Your task to perform on an android device: What is the news today? Image 0: 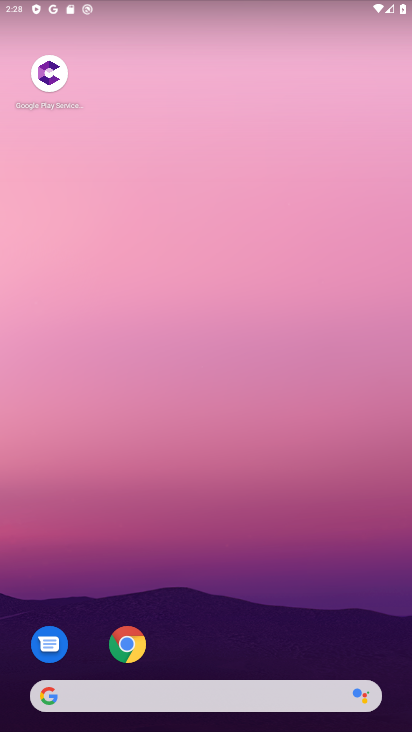
Step 0: drag from (269, 642) to (183, 113)
Your task to perform on an android device: What is the news today? Image 1: 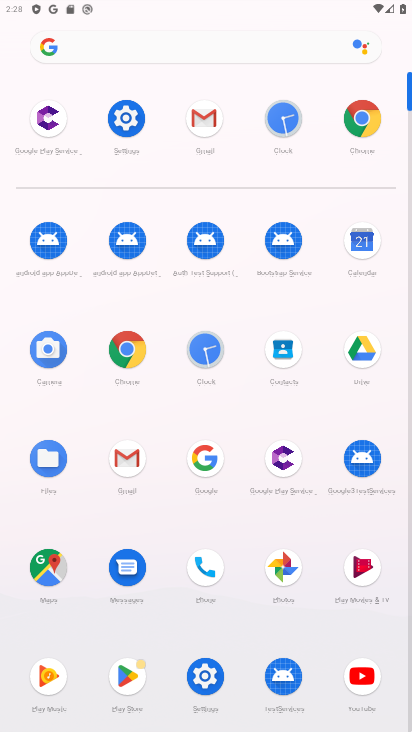
Step 1: click (366, 117)
Your task to perform on an android device: What is the news today? Image 2: 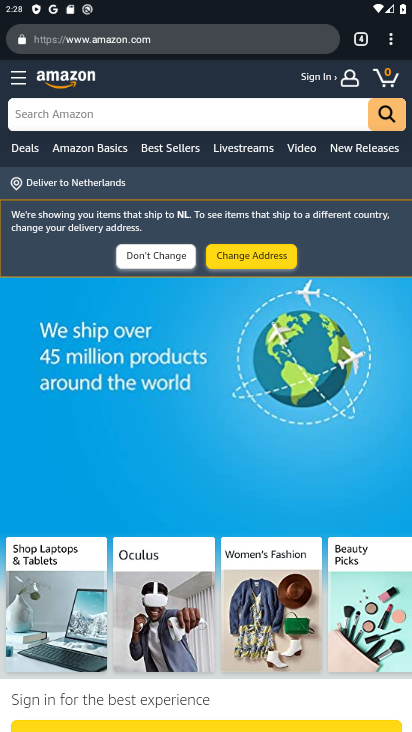
Step 2: click (211, 45)
Your task to perform on an android device: What is the news today? Image 3: 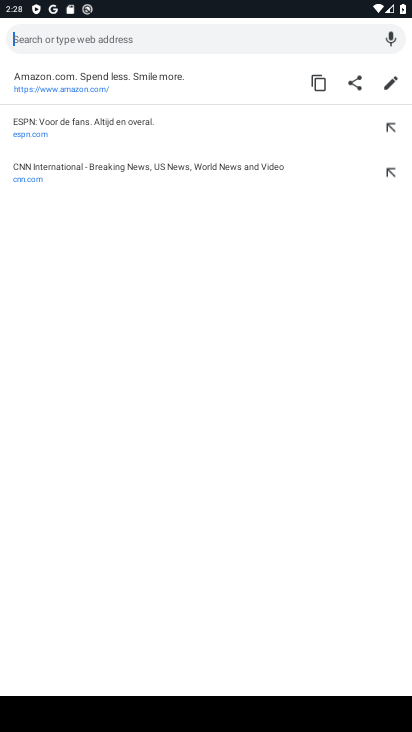
Step 3: type "What is the news today?"
Your task to perform on an android device: What is the news today? Image 4: 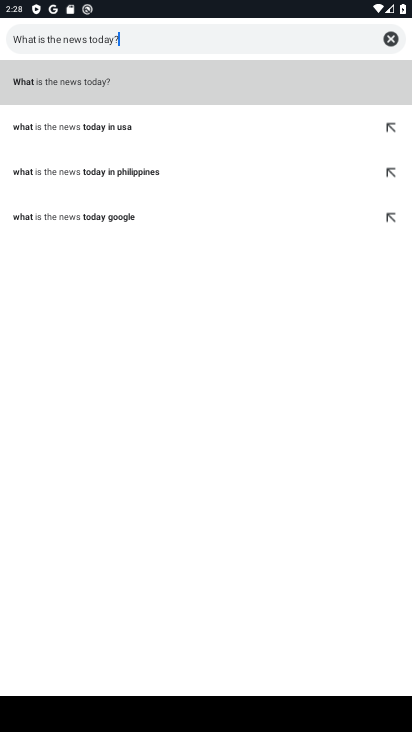
Step 4: click (269, 85)
Your task to perform on an android device: What is the news today? Image 5: 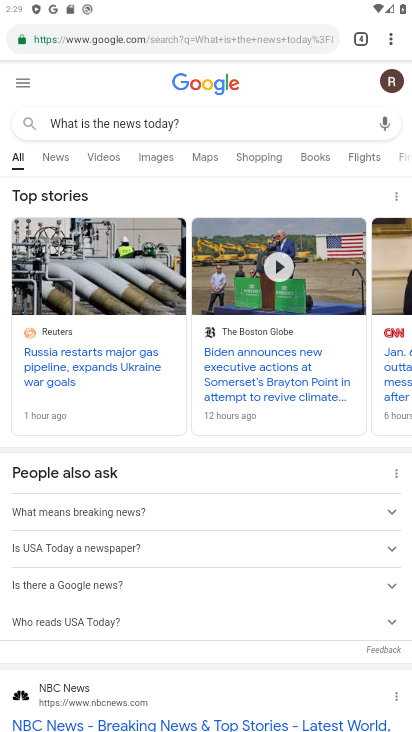
Step 5: task complete